Your task to perform on an android device: open app "Booking.com: Hotels and more" Image 0: 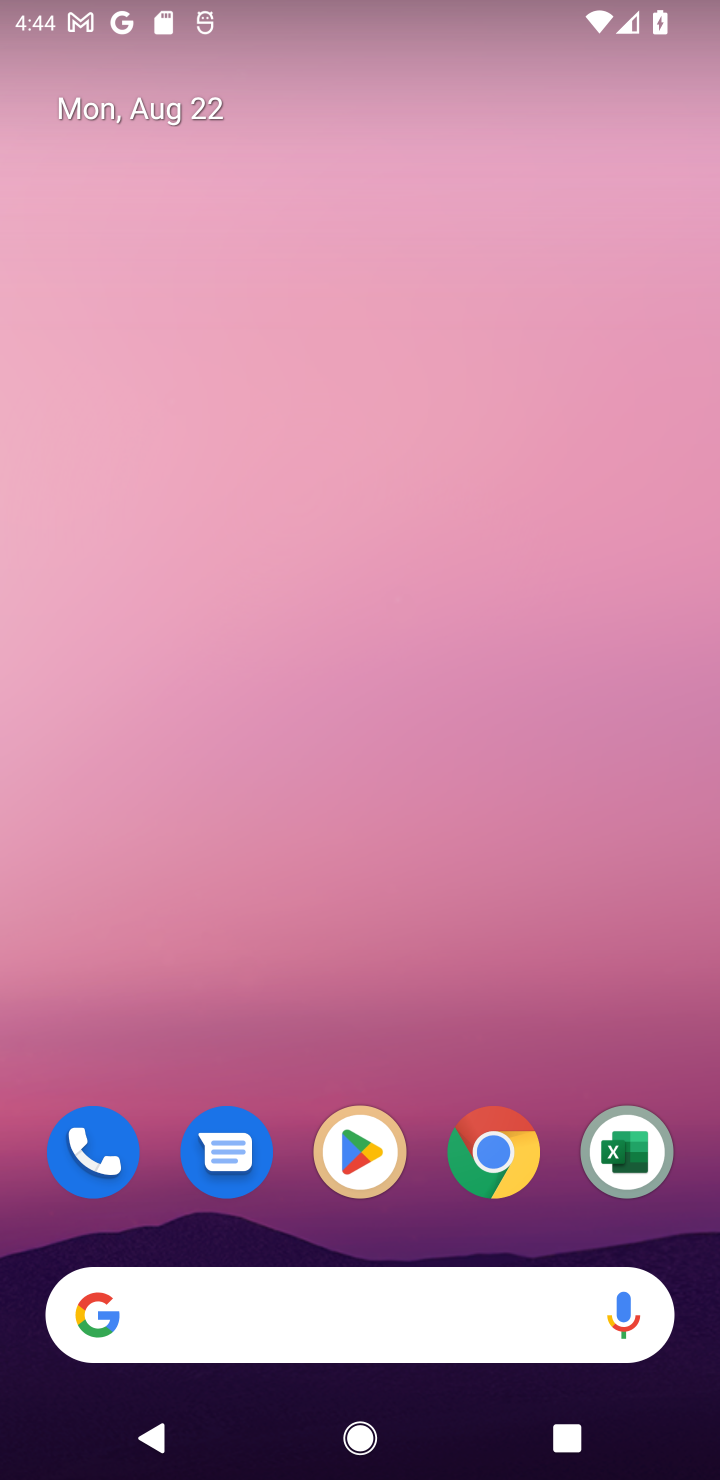
Step 0: click (348, 1132)
Your task to perform on an android device: open app "Booking.com: Hotels and more" Image 1: 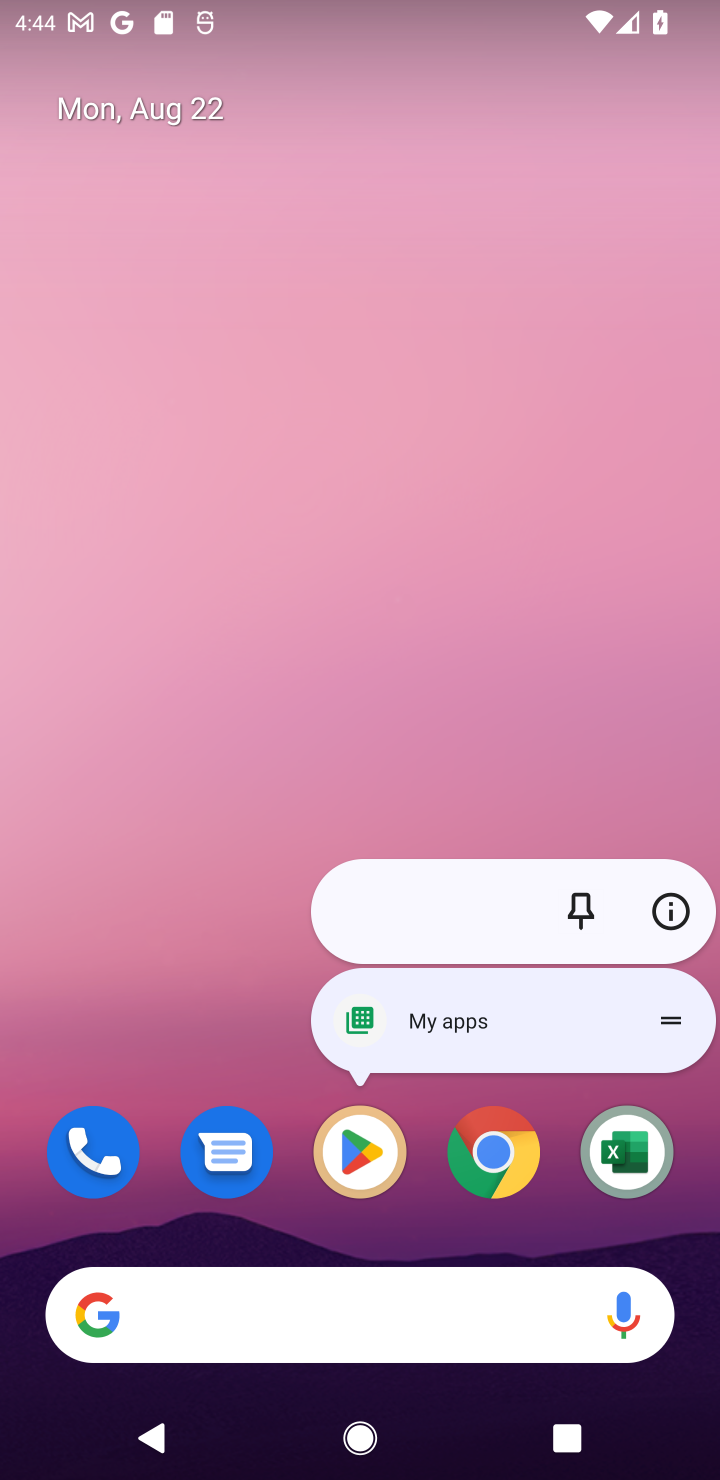
Step 1: click (374, 1179)
Your task to perform on an android device: open app "Booking.com: Hotels and more" Image 2: 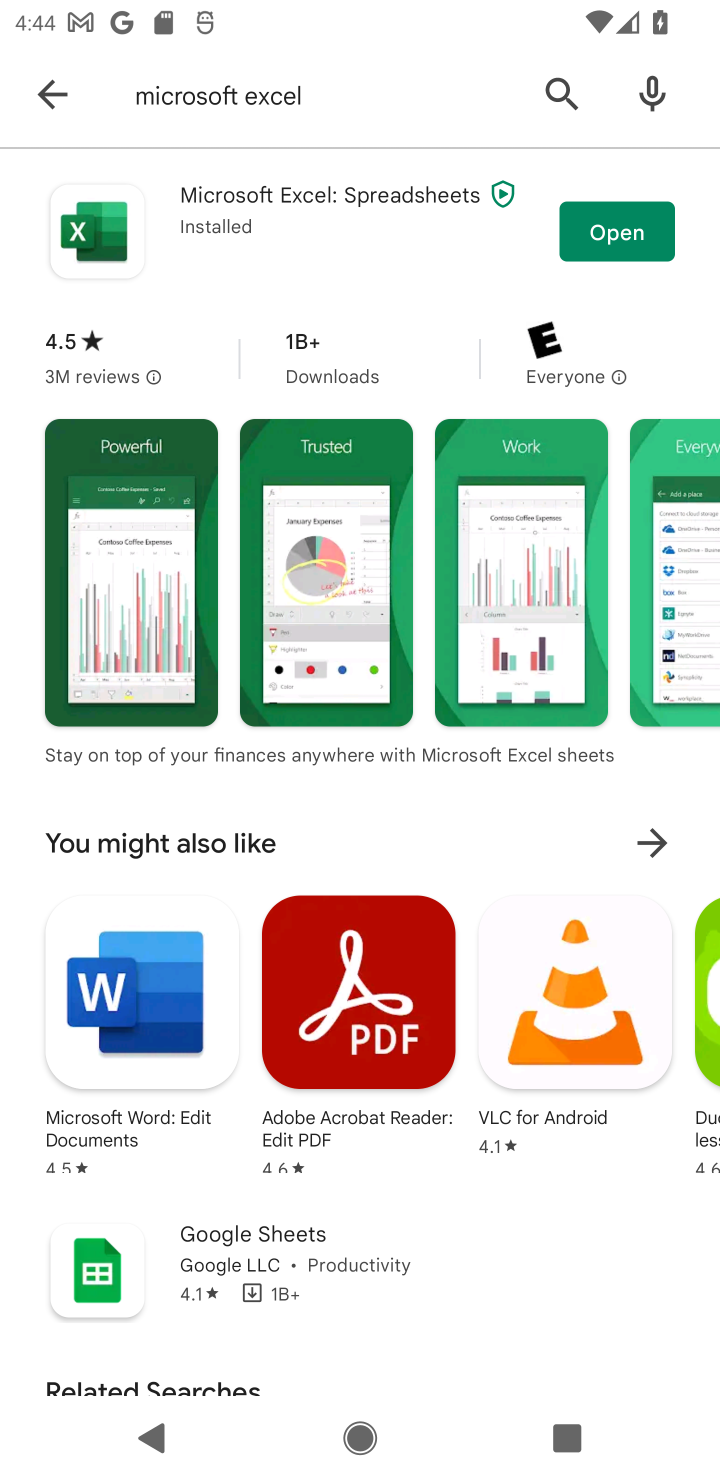
Step 2: click (39, 82)
Your task to perform on an android device: open app "Booking.com: Hotels and more" Image 3: 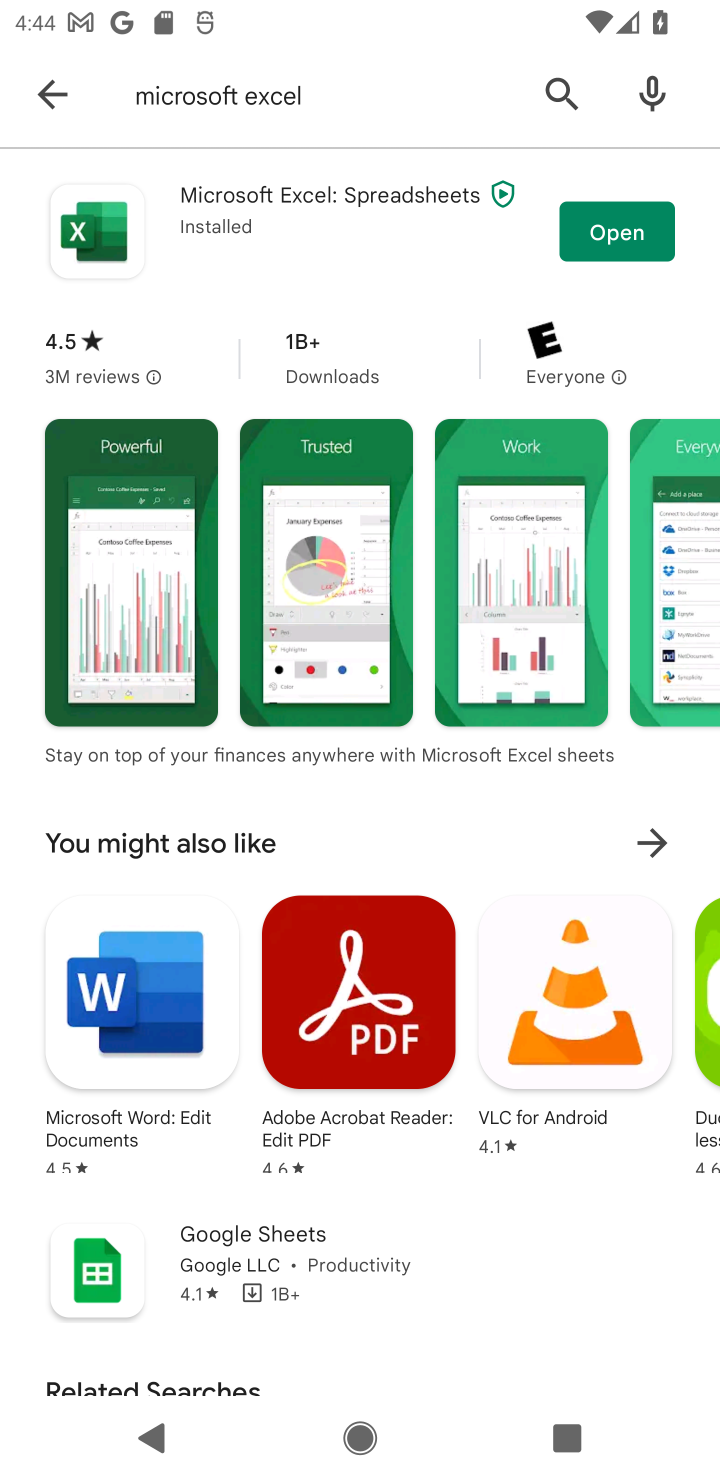
Step 3: click (39, 82)
Your task to perform on an android device: open app "Booking.com: Hotels and more" Image 4: 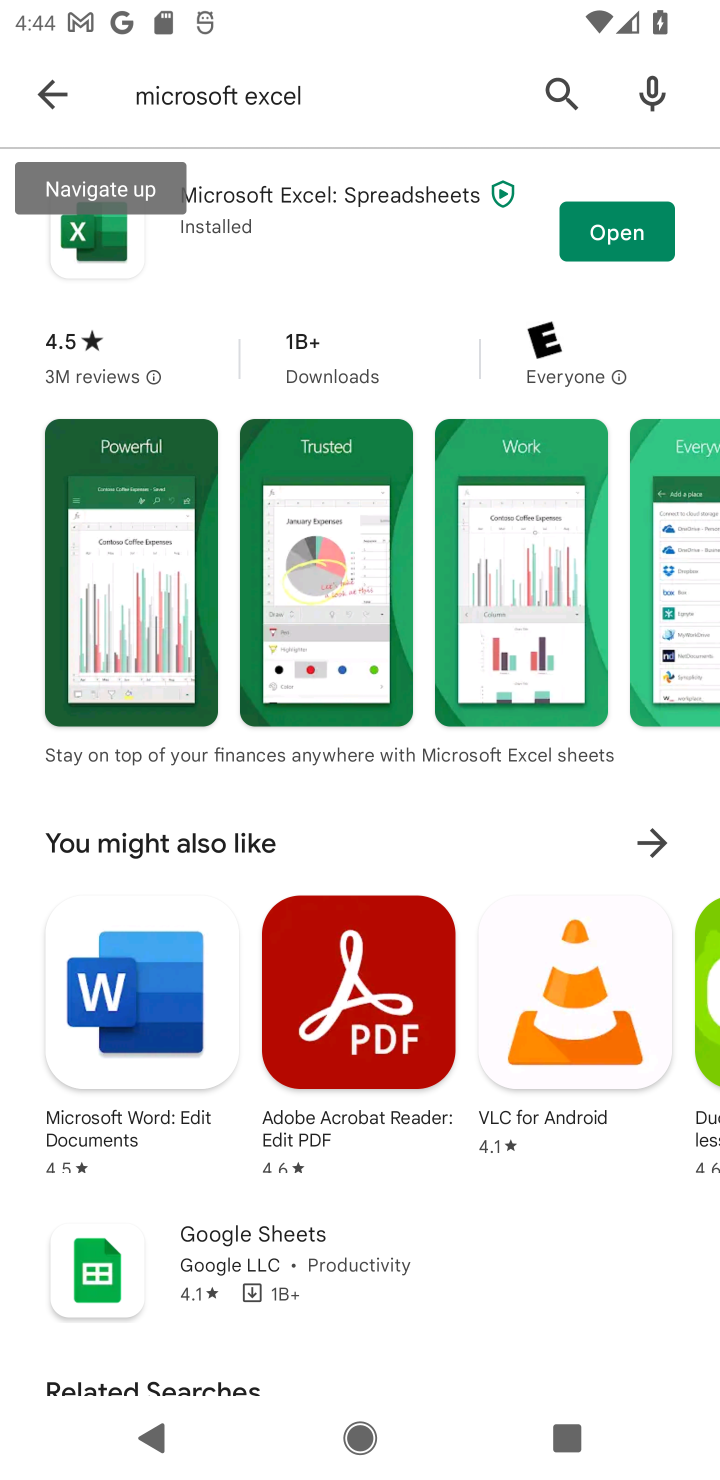
Step 4: click (39, 82)
Your task to perform on an android device: open app "Booking.com: Hotels and more" Image 5: 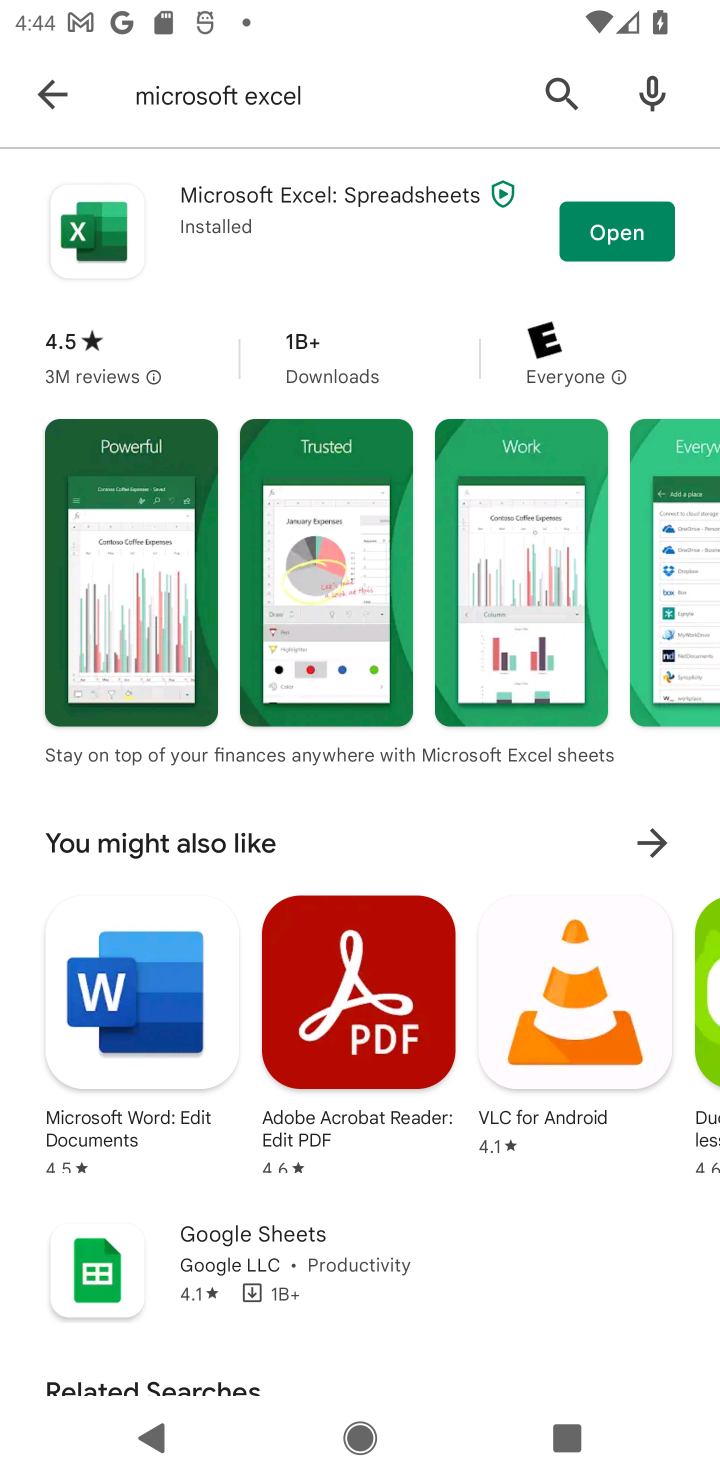
Step 5: click (34, 102)
Your task to perform on an android device: open app "Booking.com: Hotels and more" Image 6: 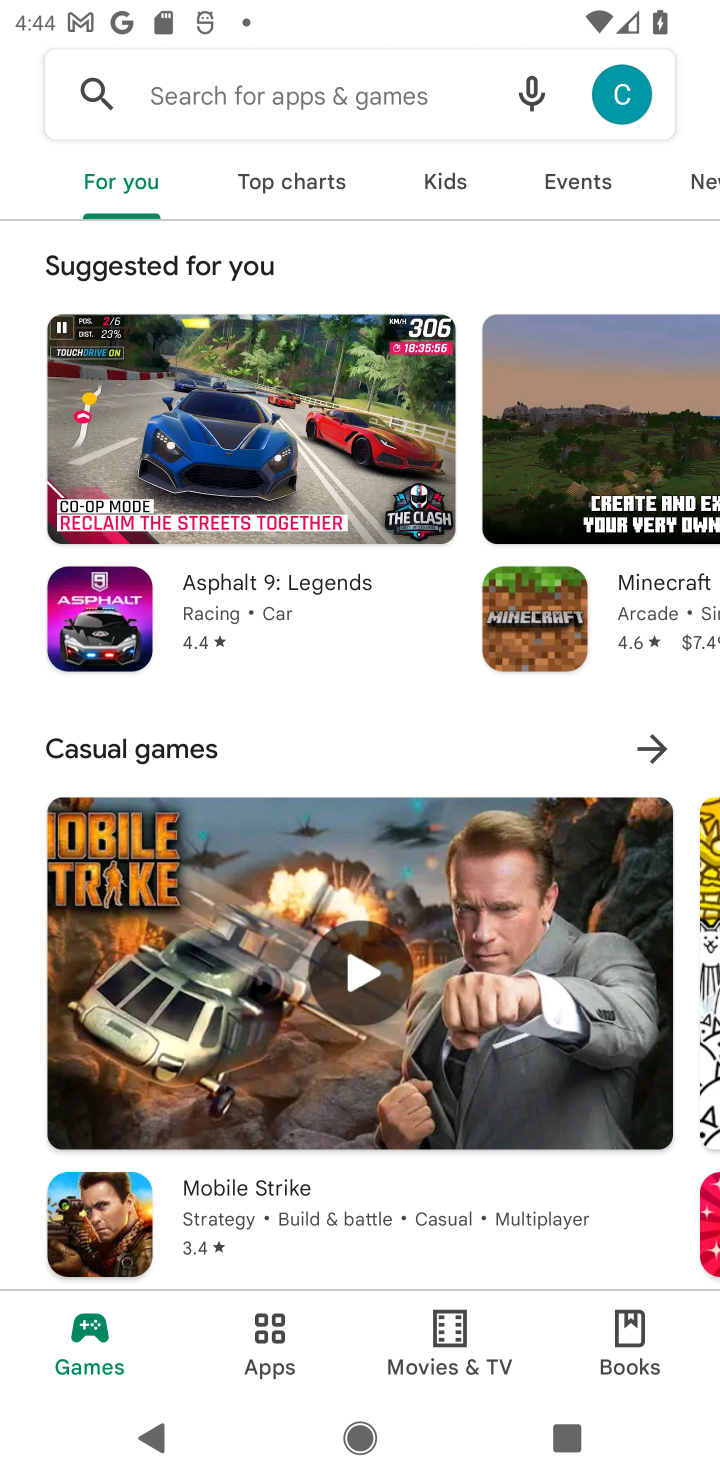
Step 6: click (135, 77)
Your task to perform on an android device: open app "Booking.com: Hotels and more" Image 7: 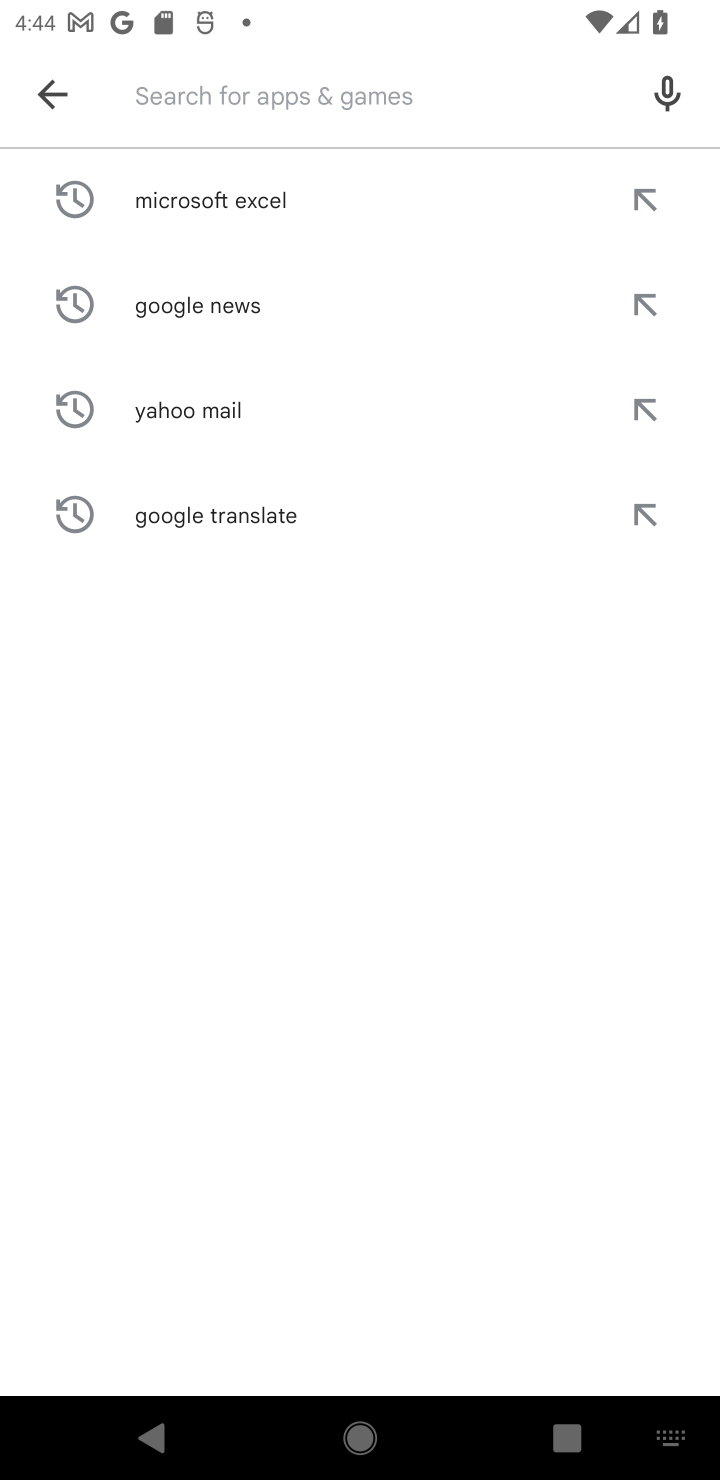
Step 7: type "Booking.com: Hotels and more"
Your task to perform on an android device: open app "Booking.com: Hotels and more" Image 8: 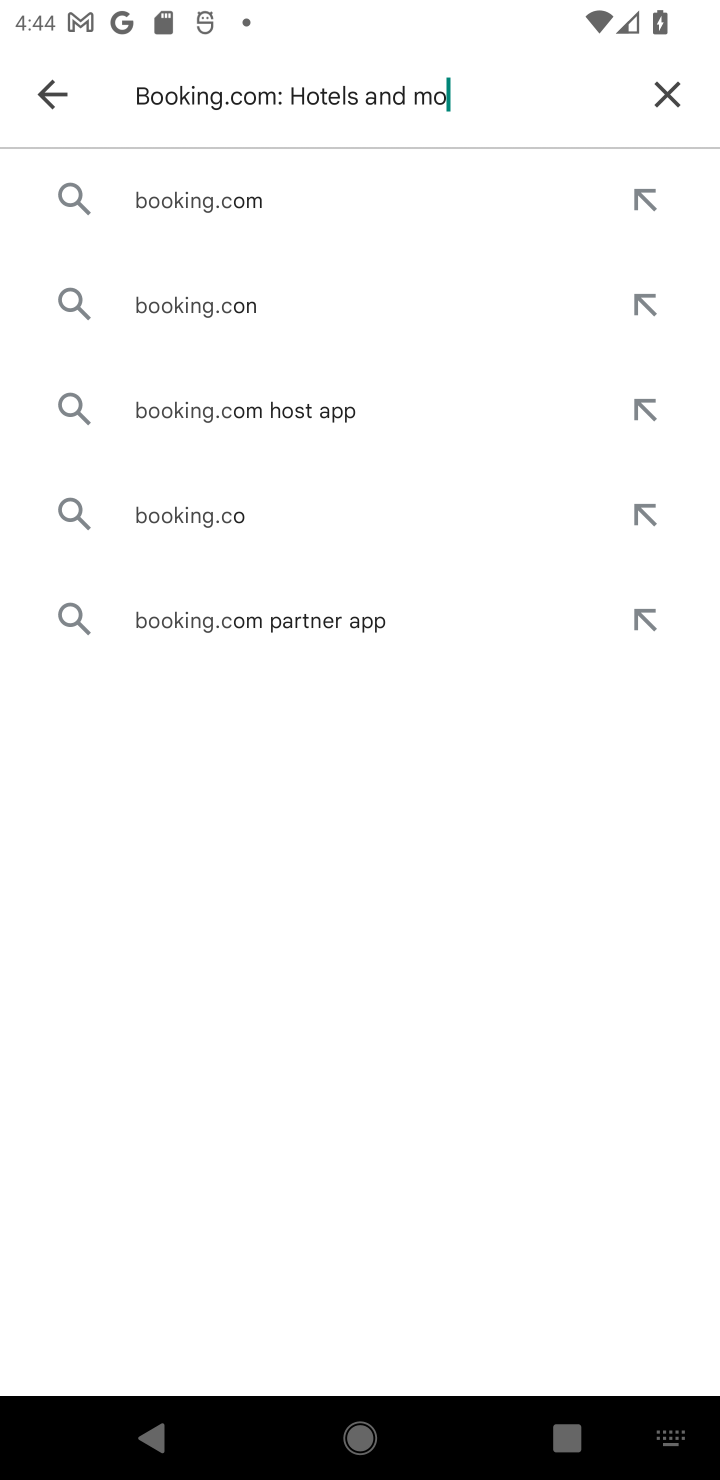
Step 8: type ""
Your task to perform on an android device: open app "Booking.com: Hotels and more" Image 9: 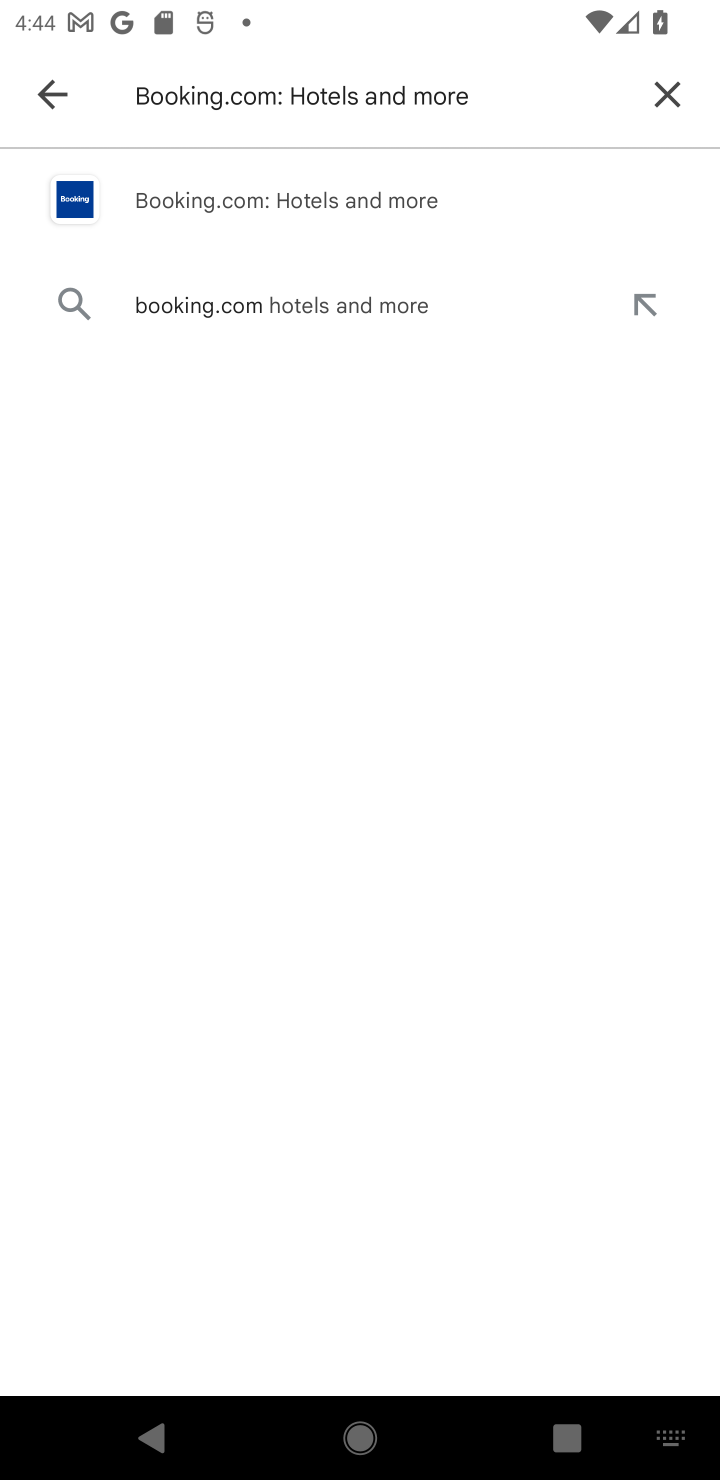
Step 9: click (288, 222)
Your task to perform on an android device: open app "Booking.com: Hotels and more" Image 10: 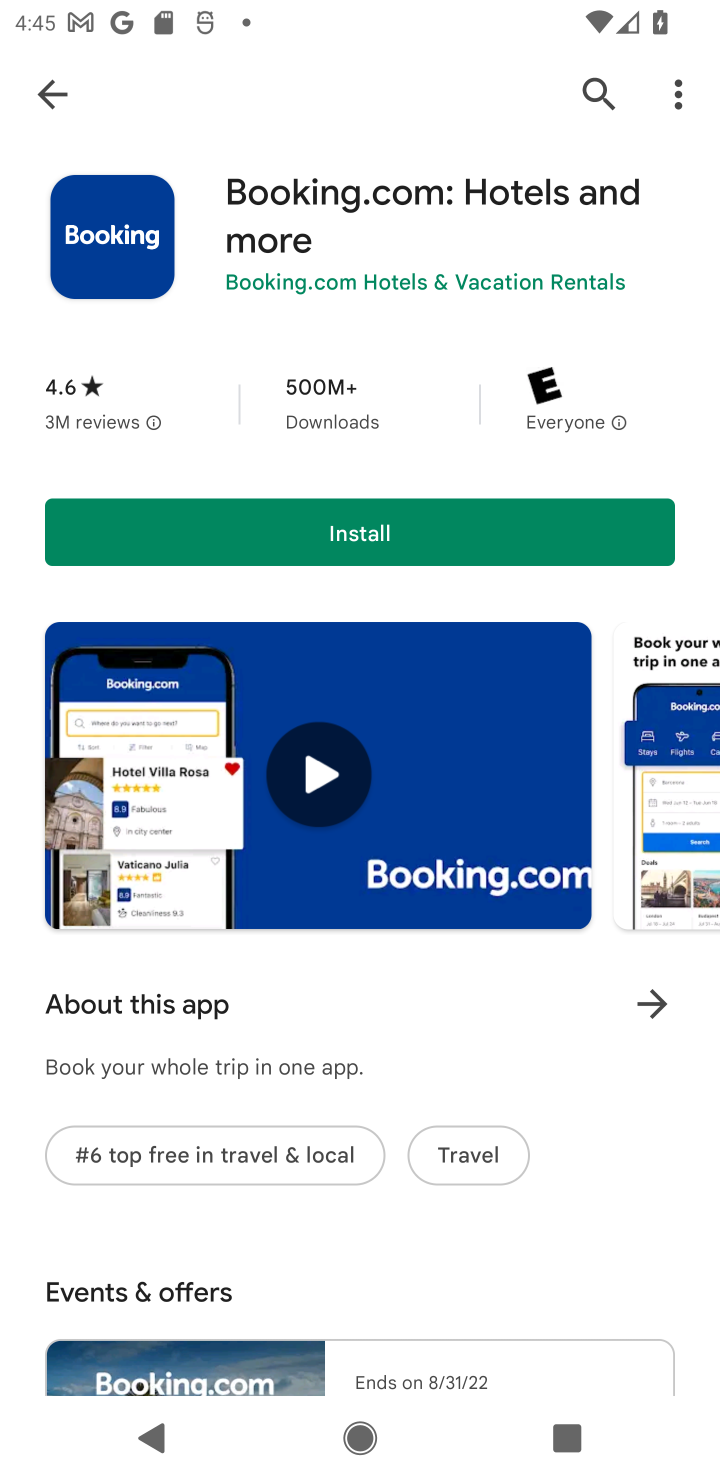
Step 10: click (341, 518)
Your task to perform on an android device: open app "Booking.com: Hotels and more" Image 11: 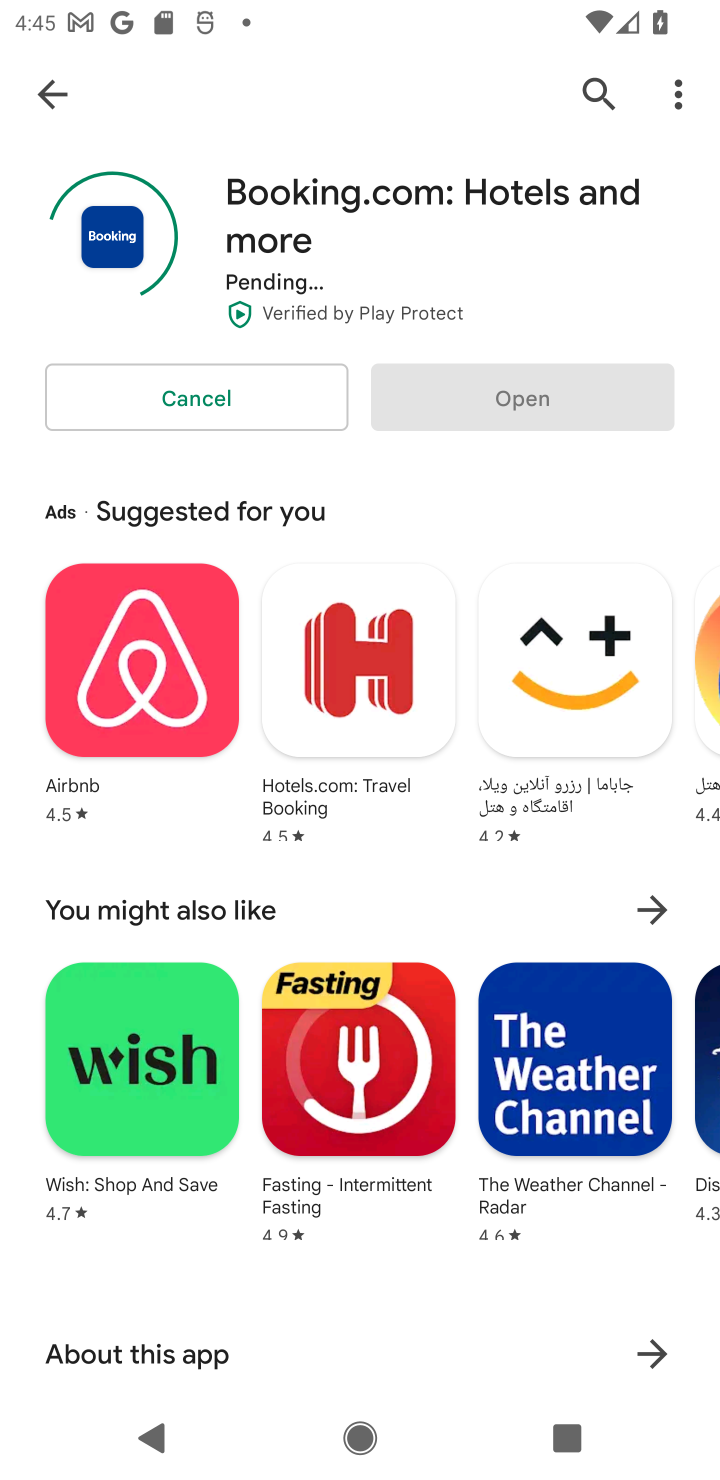
Step 11: click (197, 414)
Your task to perform on an android device: open app "Booking.com: Hotels and more" Image 12: 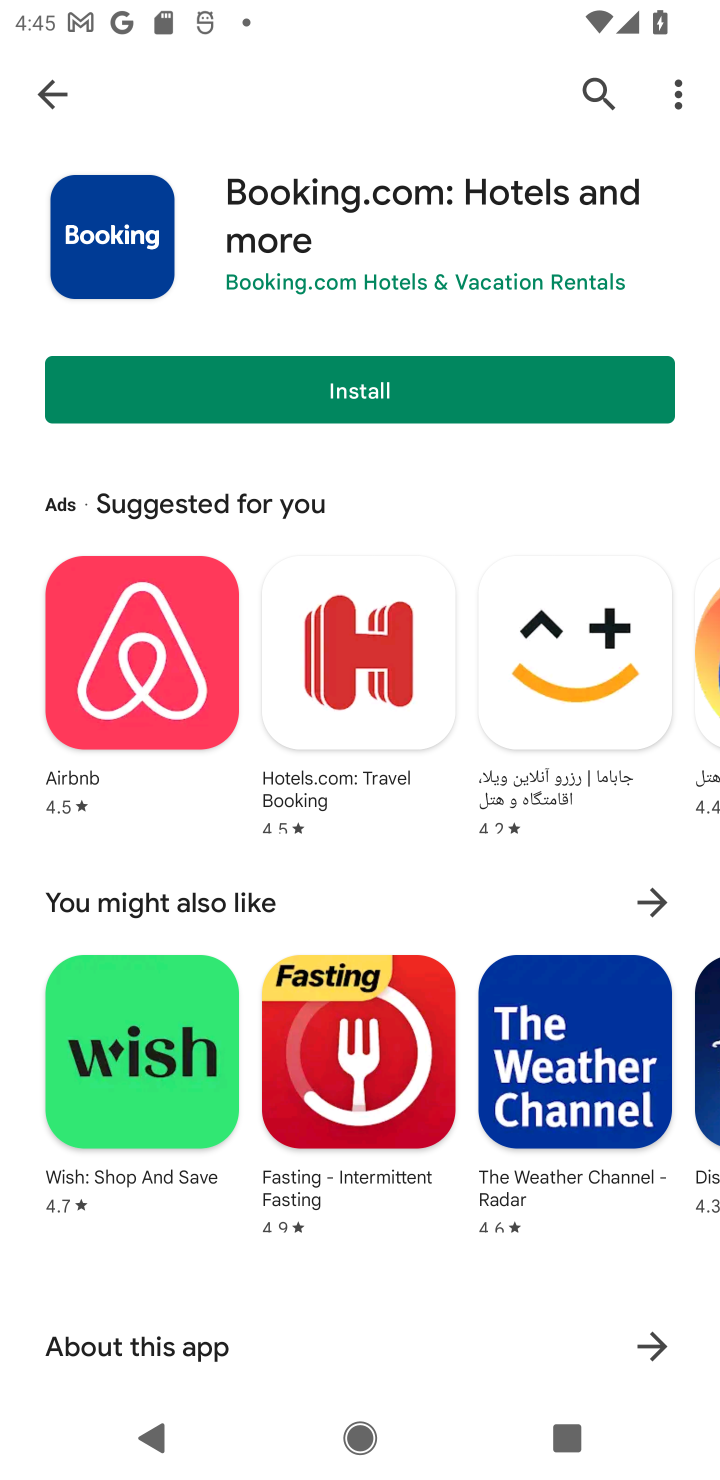
Step 12: task complete